Your task to perform on an android device: open app "NewsBreak: Local News & Alerts" Image 0: 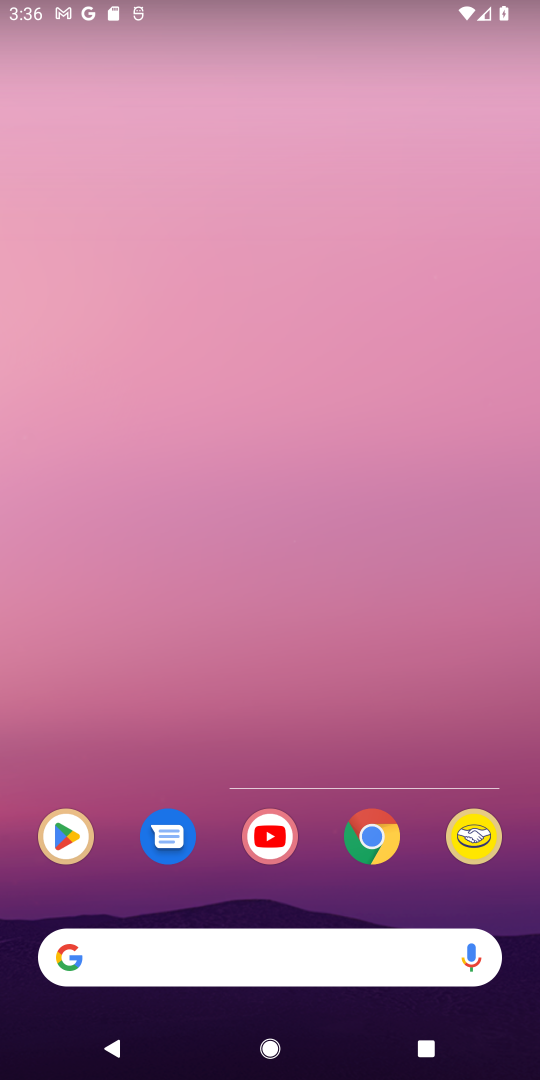
Step 0: press home button
Your task to perform on an android device: open app "NewsBreak: Local News & Alerts" Image 1: 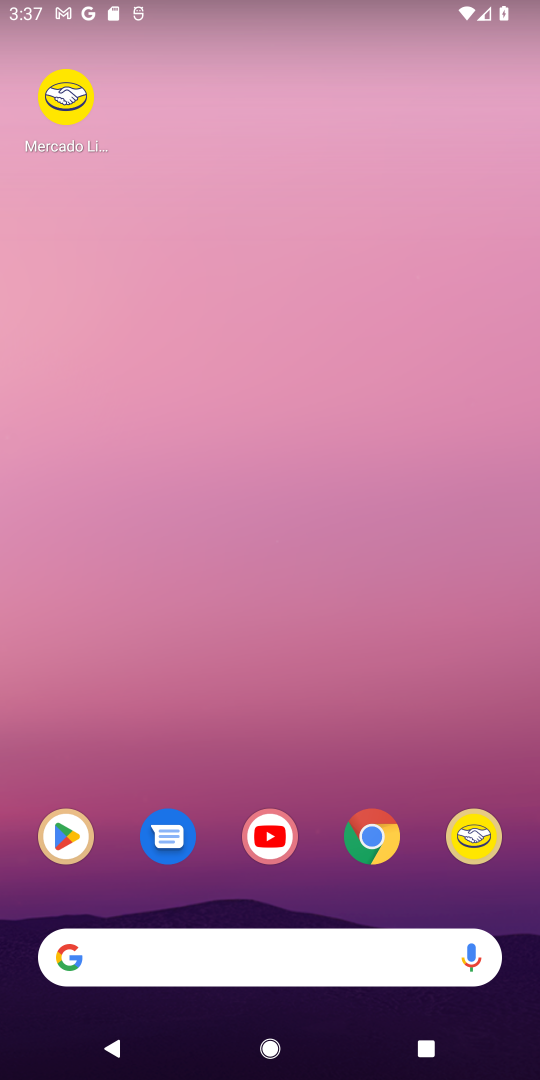
Step 1: drag from (247, 768) to (182, 340)
Your task to perform on an android device: open app "NewsBreak: Local News & Alerts" Image 2: 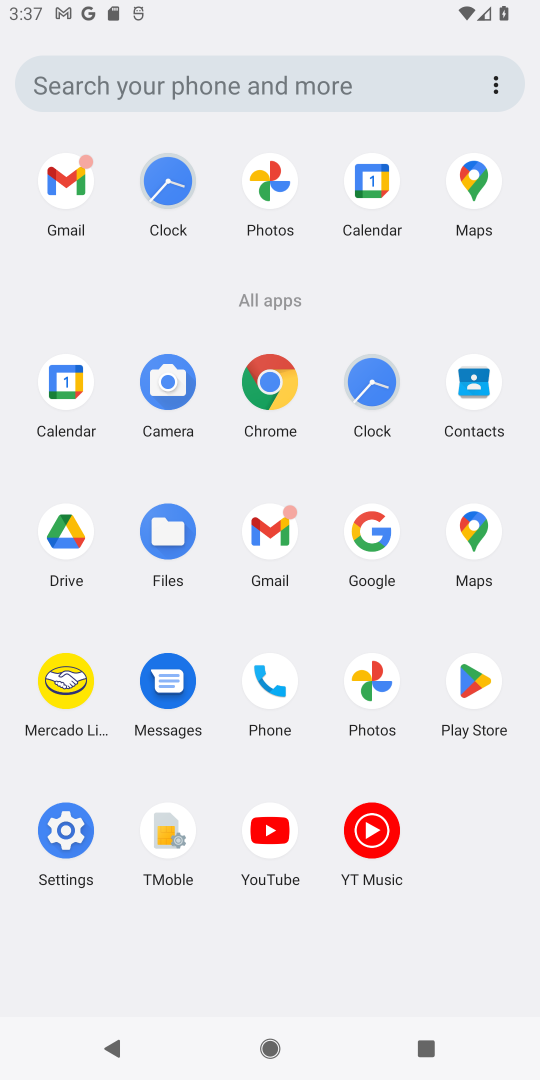
Step 2: click (471, 692)
Your task to perform on an android device: open app "NewsBreak: Local News & Alerts" Image 3: 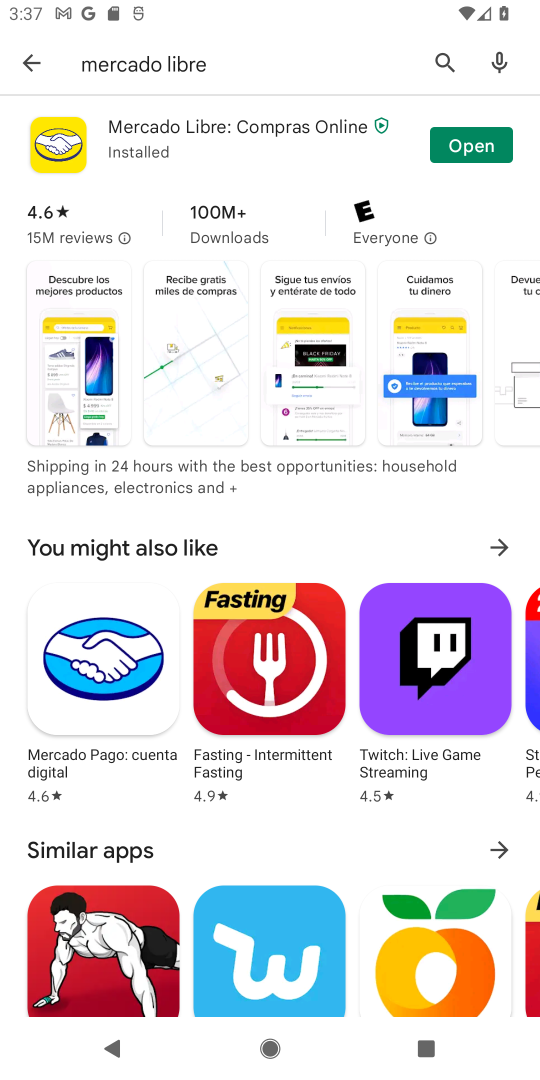
Step 3: click (27, 55)
Your task to perform on an android device: open app "NewsBreak: Local News & Alerts" Image 4: 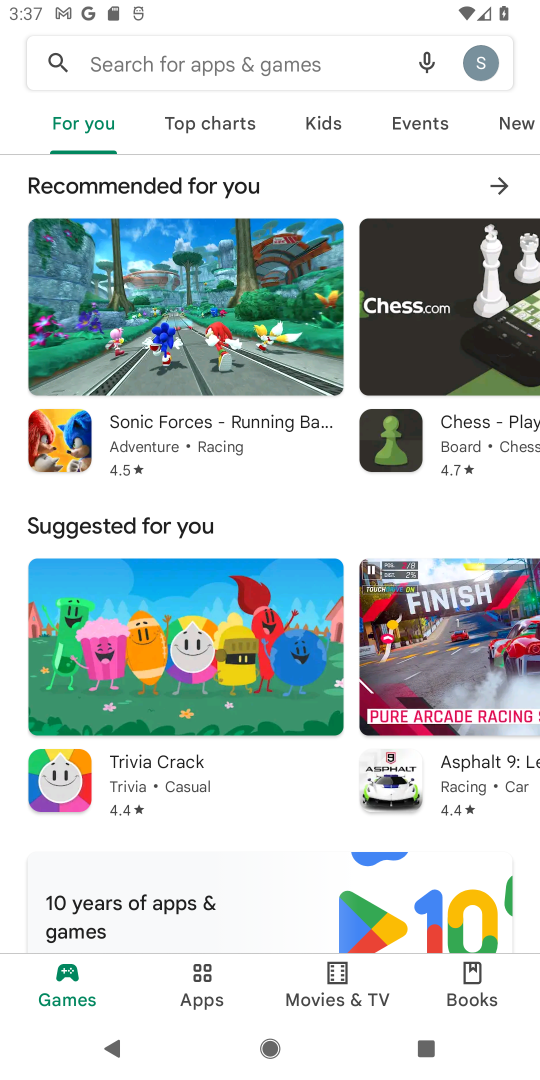
Step 4: click (156, 45)
Your task to perform on an android device: open app "NewsBreak: Local News & Alerts" Image 5: 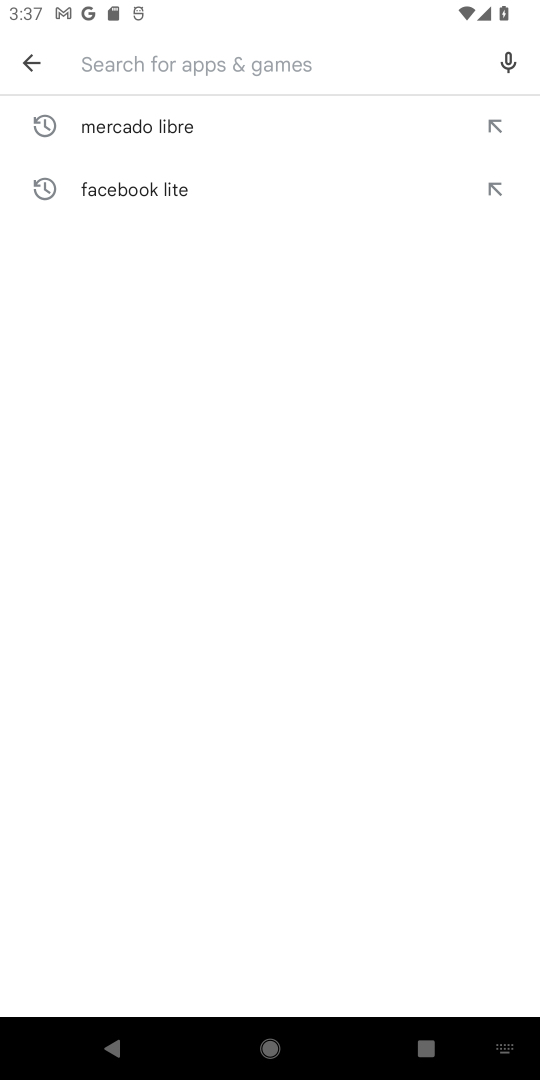
Step 5: type "NewsBreak: Local News & Alerts"
Your task to perform on an android device: open app "NewsBreak: Local News & Alerts" Image 6: 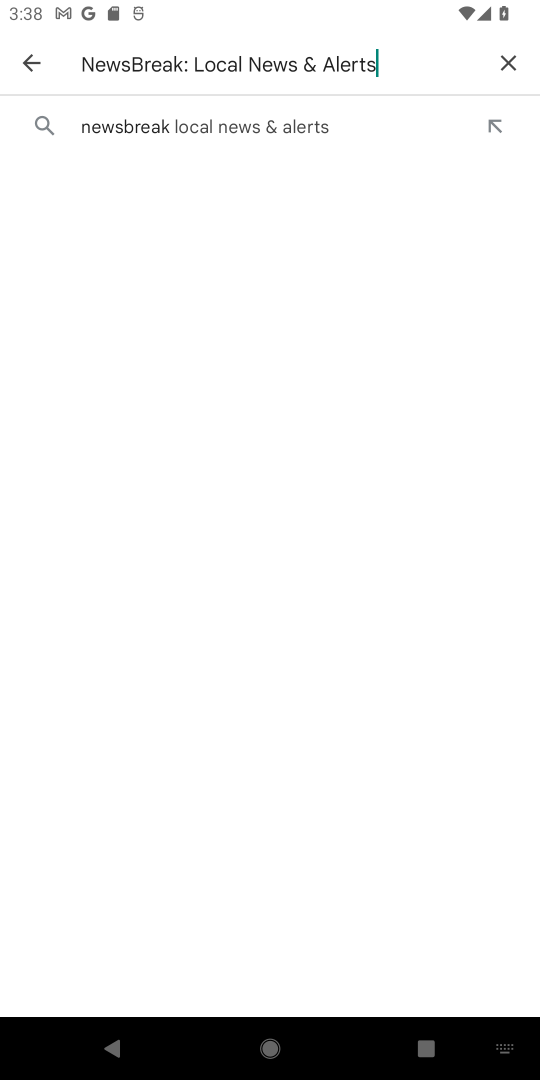
Step 6: click (182, 111)
Your task to perform on an android device: open app "NewsBreak: Local News & Alerts" Image 7: 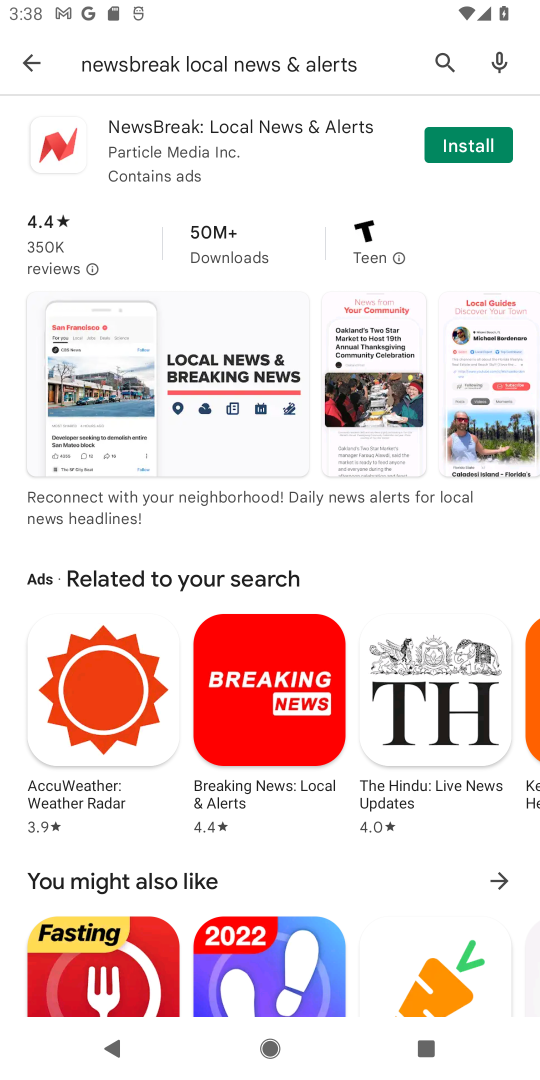
Step 7: click (466, 141)
Your task to perform on an android device: open app "NewsBreak: Local News & Alerts" Image 8: 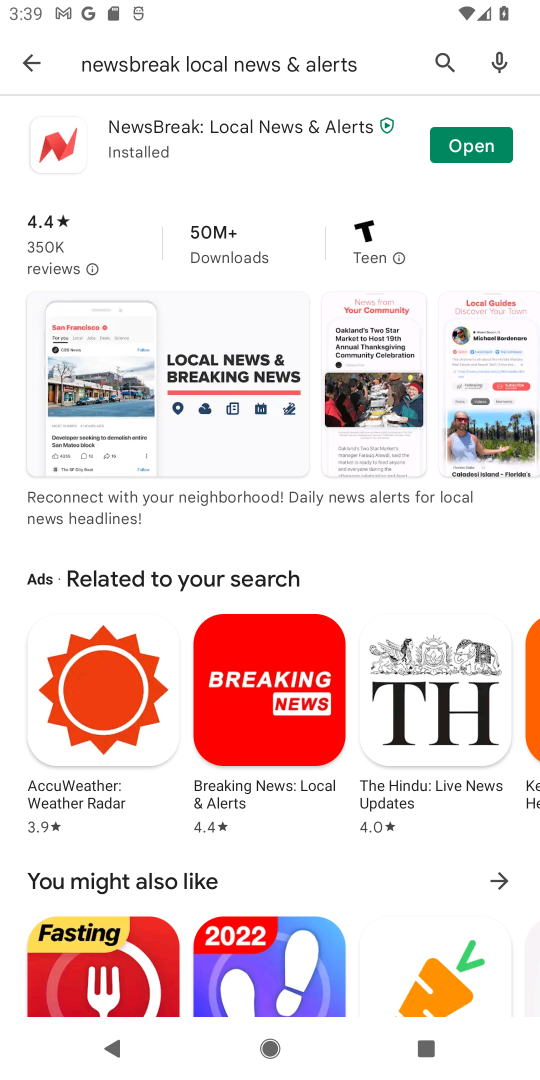
Step 8: click (460, 150)
Your task to perform on an android device: open app "NewsBreak: Local News & Alerts" Image 9: 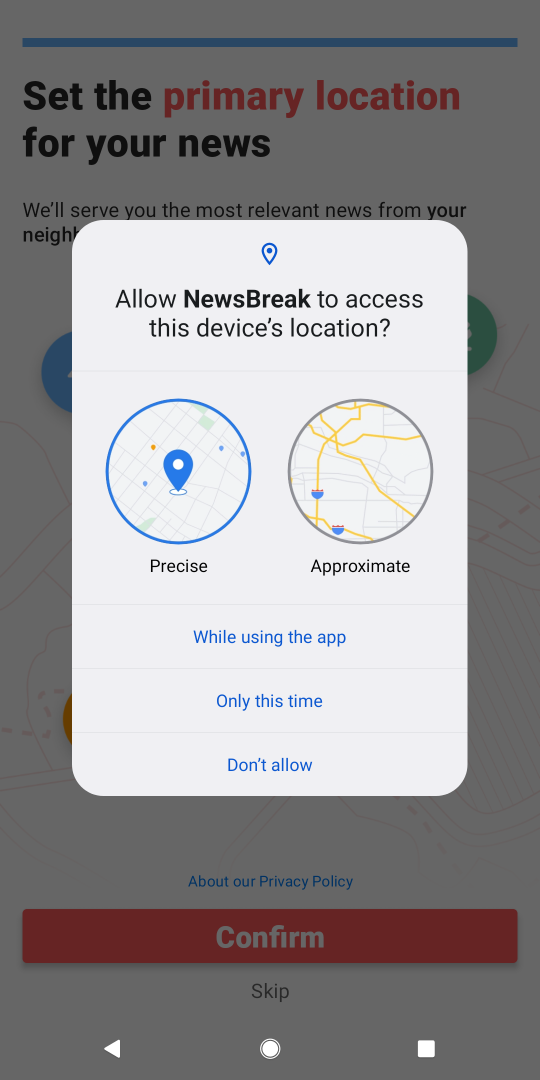
Step 9: task complete